Your task to perform on an android device: empty trash in the gmail app Image 0: 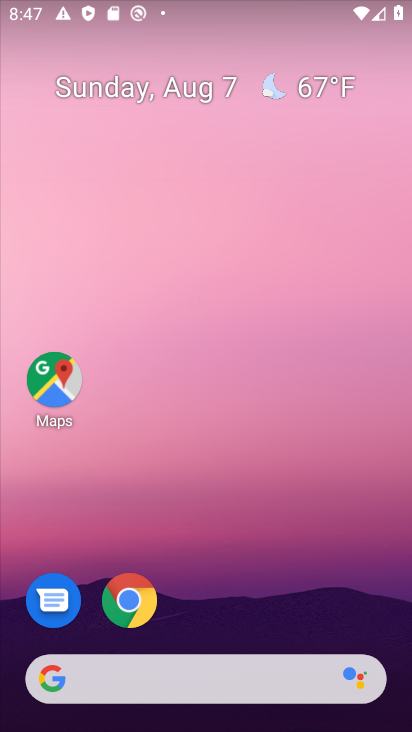
Step 0: drag from (208, 598) to (259, 24)
Your task to perform on an android device: empty trash in the gmail app Image 1: 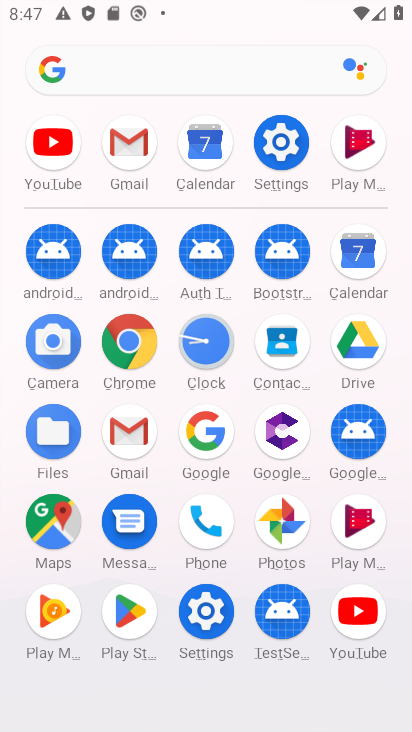
Step 1: click (140, 148)
Your task to perform on an android device: empty trash in the gmail app Image 2: 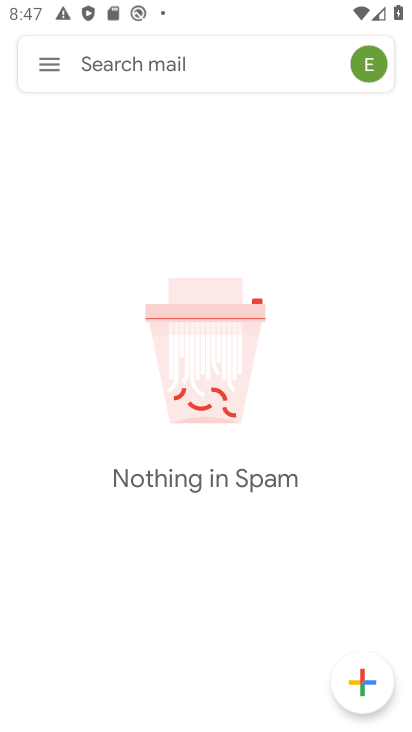
Step 2: click (48, 58)
Your task to perform on an android device: empty trash in the gmail app Image 3: 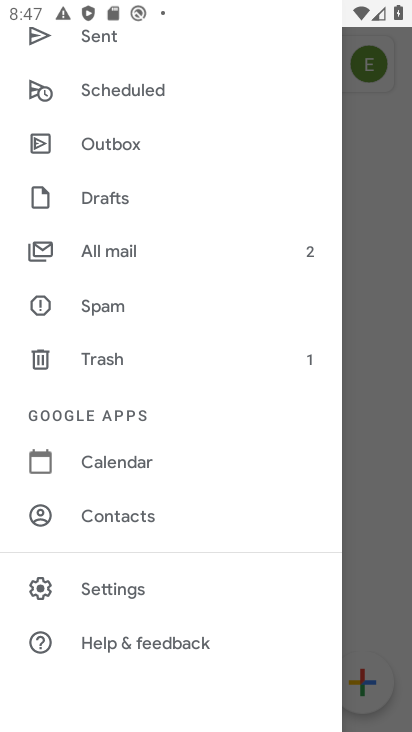
Step 3: click (112, 358)
Your task to perform on an android device: empty trash in the gmail app Image 4: 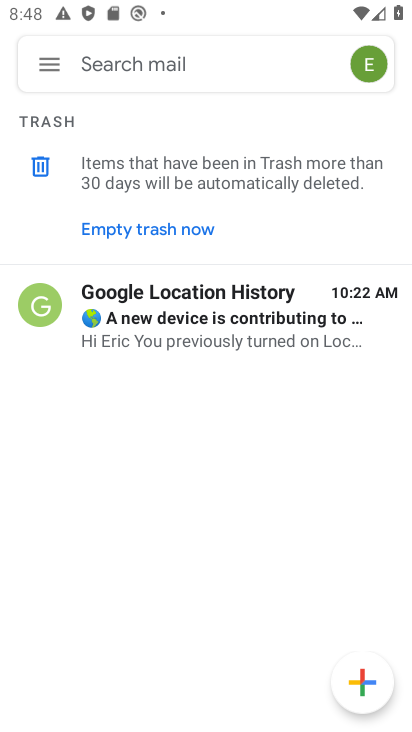
Step 4: drag from (239, 301) to (240, 439)
Your task to perform on an android device: empty trash in the gmail app Image 5: 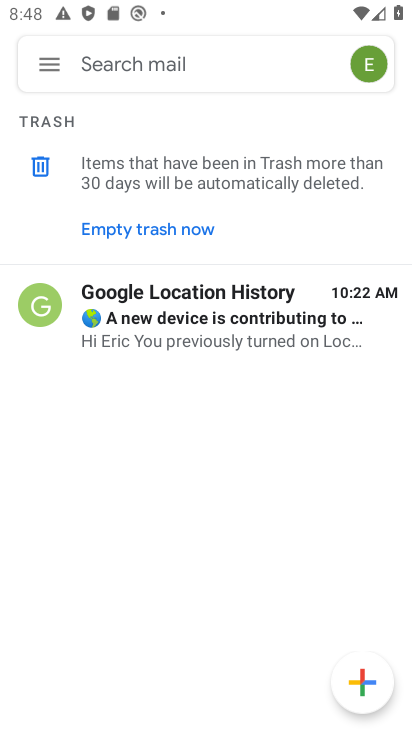
Step 5: click (119, 233)
Your task to perform on an android device: empty trash in the gmail app Image 6: 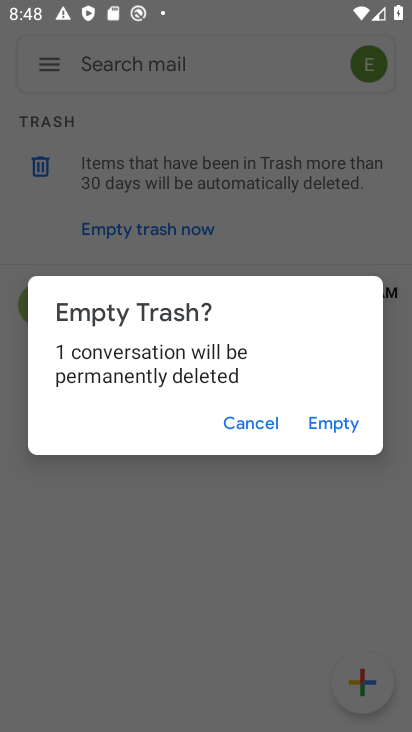
Step 6: click (336, 415)
Your task to perform on an android device: empty trash in the gmail app Image 7: 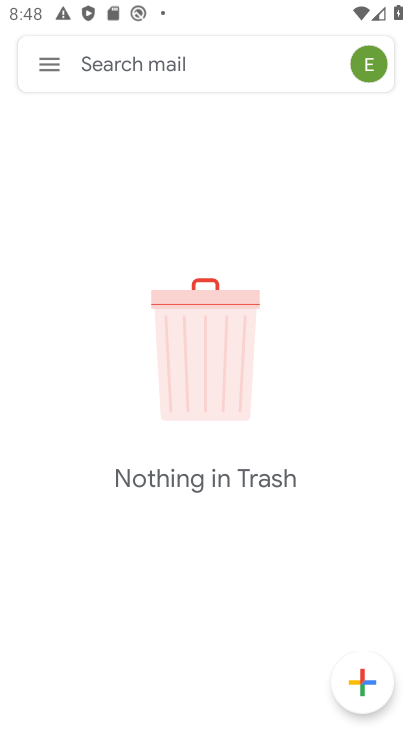
Step 7: task complete